Your task to perform on an android device: open chrome and create a bookmark for the current page Image 0: 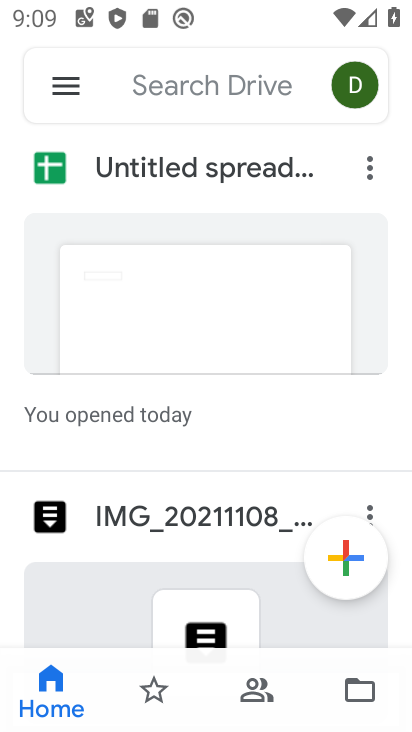
Step 0: press home button
Your task to perform on an android device: open chrome and create a bookmark for the current page Image 1: 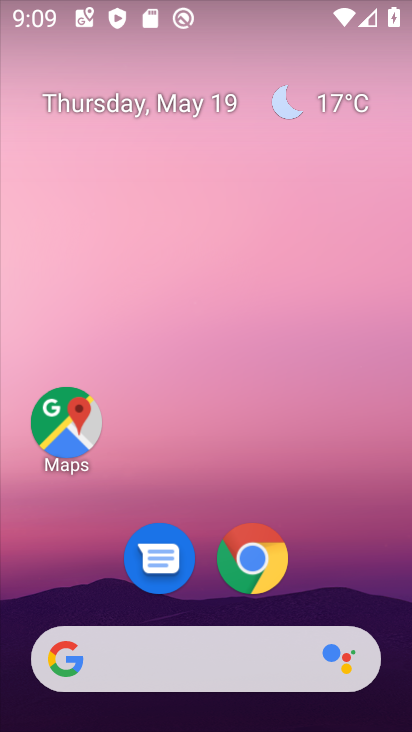
Step 1: click (250, 561)
Your task to perform on an android device: open chrome and create a bookmark for the current page Image 2: 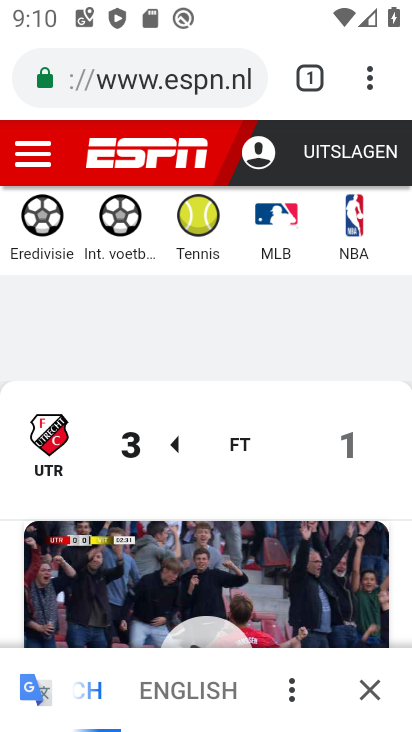
Step 2: click (370, 84)
Your task to perform on an android device: open chrome and create a bookmark for the current page Image 3: 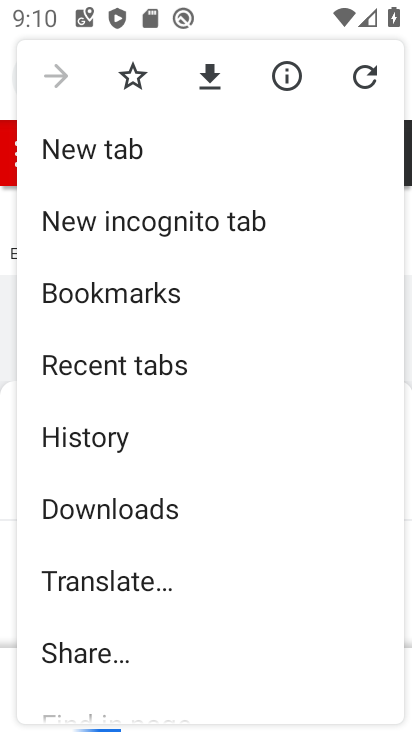
Step 3: click (132, 70)
Your task to perform on an android device: open chrome and create a bookmark for the current page Image 4: 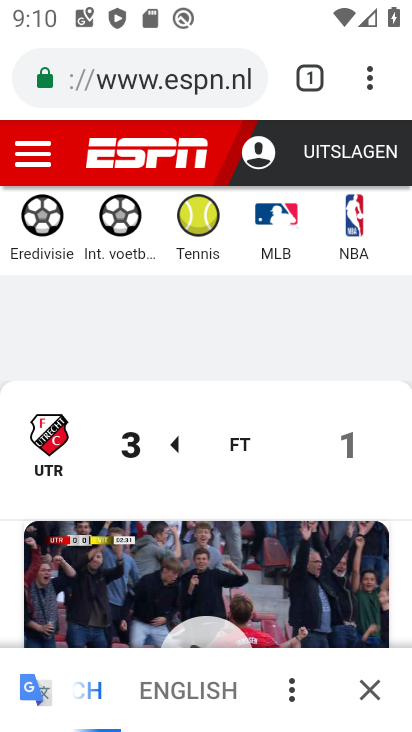
Step 4: task complete